Your task to perform on an android device: choose inbox layout in the gmail app Image 0: 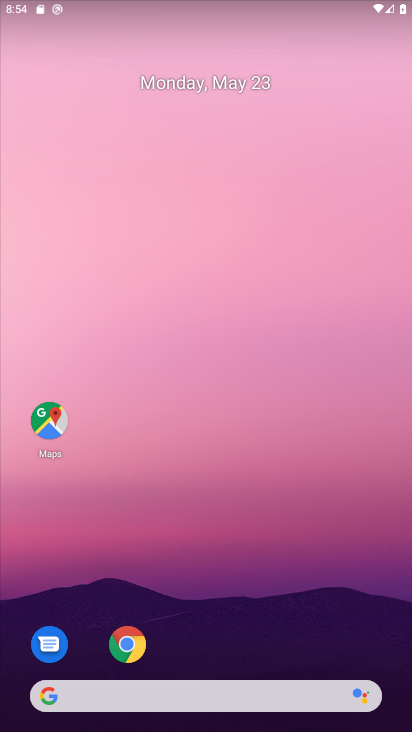
Step 0: drag from (288, 536) to (261, 112)
Your task to perform on an android device: choose inbox layout in the gmail app Image 1: 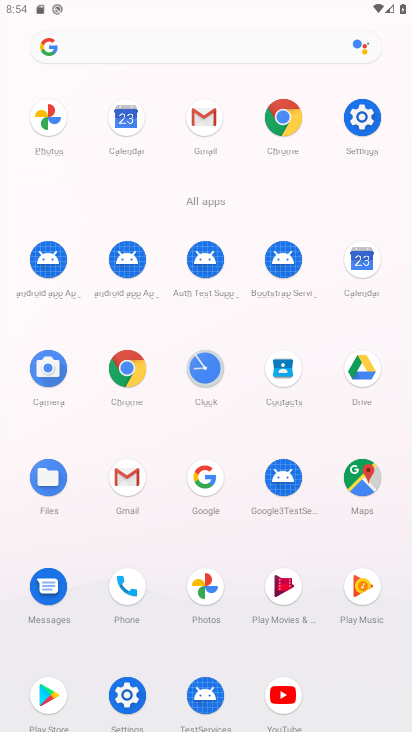
Step 1: click (140, 478)
Your task to perform on an android device: choose inbox layout in the gmail app Image 2: 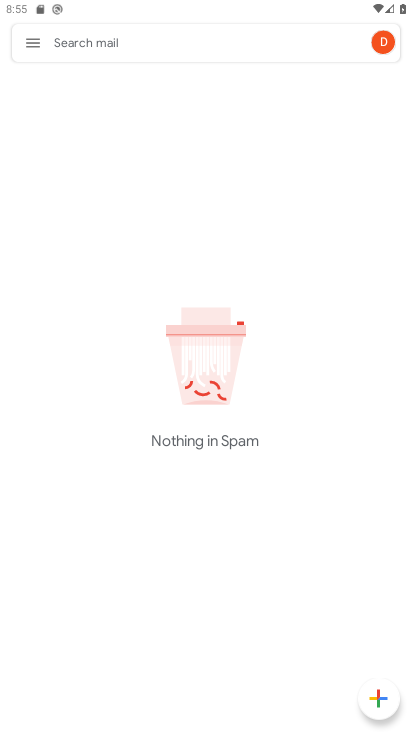
Step 2: click (35, 43)
Your task to perform on an android device: choose inbox layout in the gmail app Image 3: 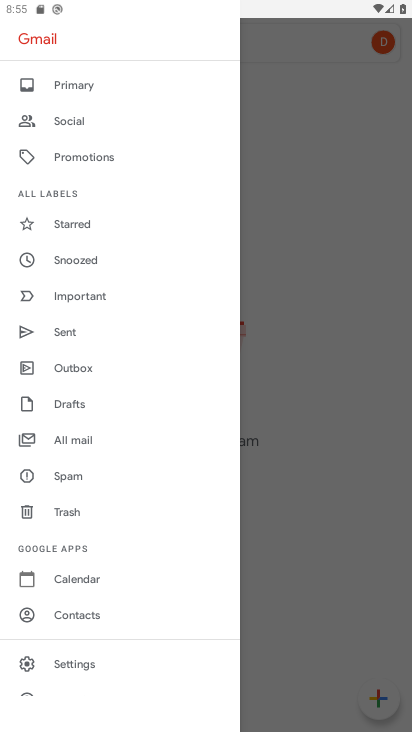
Step 3: click (78, 657)
Your task to perform on an android device: choose inbox layout in the gmail app Image 4: 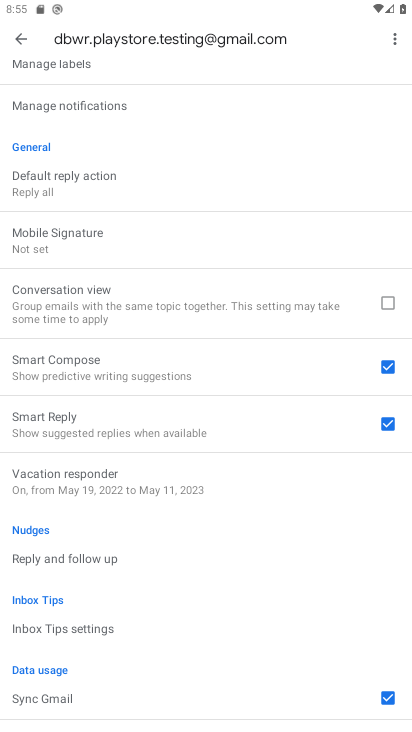
Step 4: drag from (155, 182) to (122, 591)
Your task to perform on an android device: choose inbox layout in the gmail app Image 5: 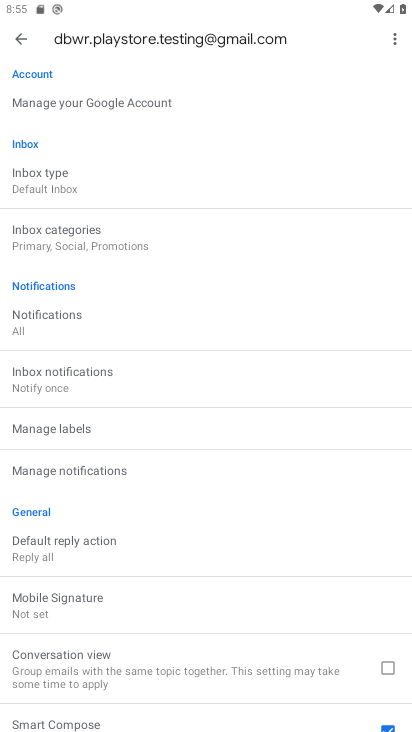
Step 5: click (103, 192)
Your task to perform on an android device: choose inbox layout in the gmail app Image 6: 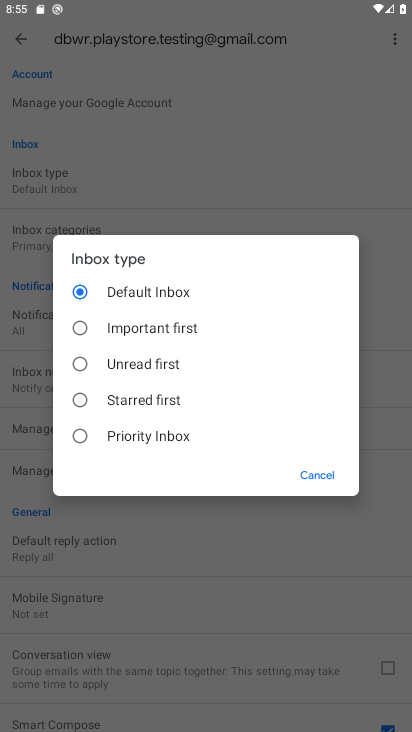
Step 6: click (144, 360)
Your task to perform on an android device: choose inbox layout in the gmail app Image 7: 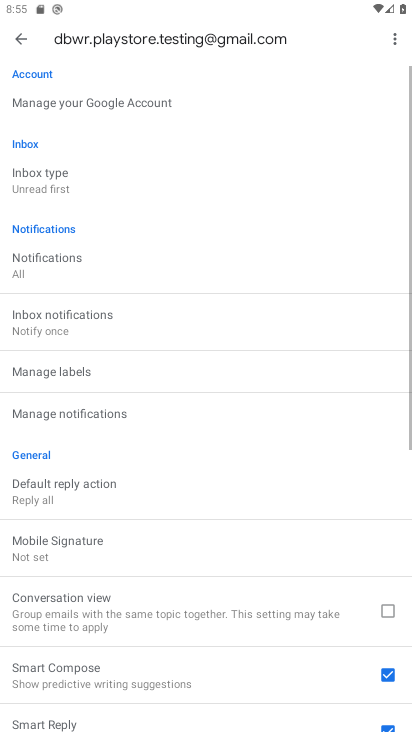
Step 7: task complete